Your task to perform on an android device: turn off javascript in the chrome app Image 0: 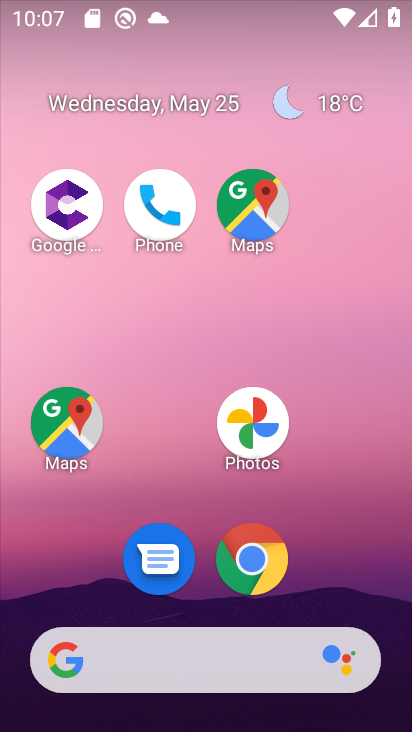
Step 0: click (257, 569)
Your task to perform on an android device: turn off javascript in the chrome app Image 1: 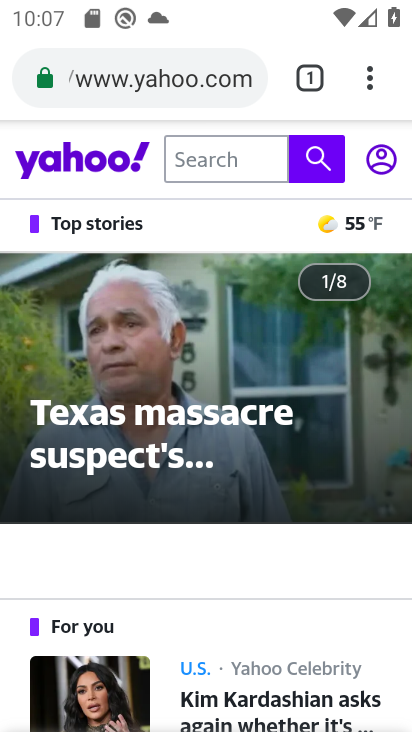
Step 1: click (378, 80)
Your task to perform on an android device: turn off javascript in the chrome app Image 2: 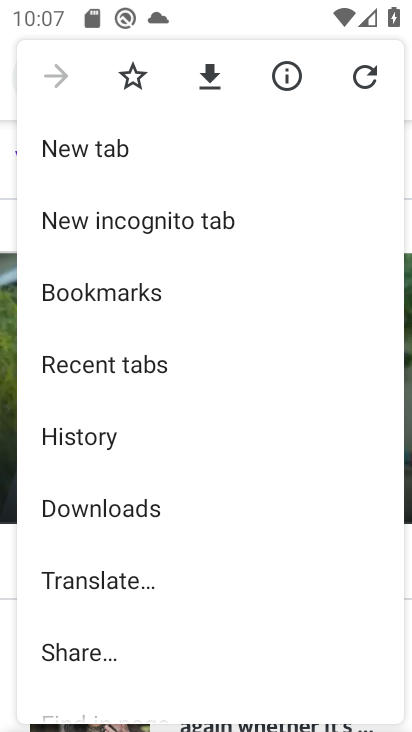
Step 2: drag from (152, 599) to (193, 258)
Your task to perform on an android device: turn off javascript in the chrome app Image 3: 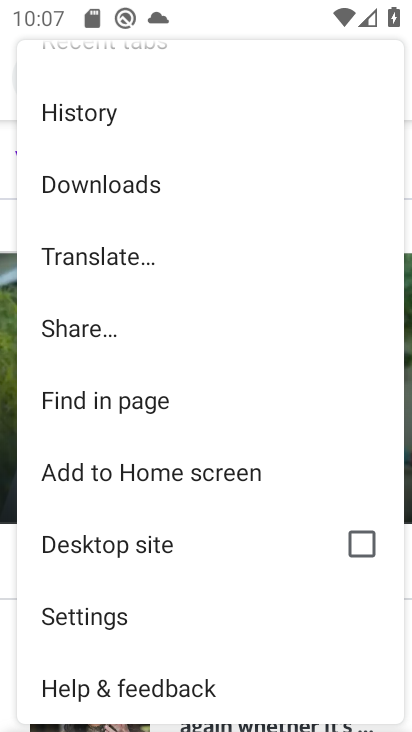
Step 3: click (103, 611)
Your task to perform on an android device: turn off javascript in the chrome app Image 4: 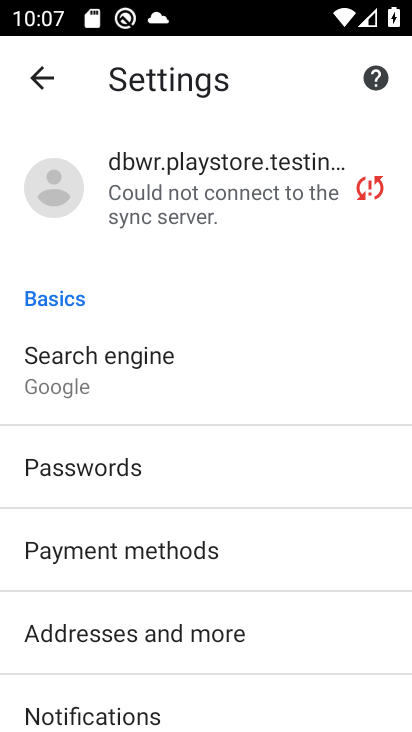
Step 4: drag from (274, 657) to (289, 382)
Your task to perform on an android device: turn off javascript in the chrome app Image 5: 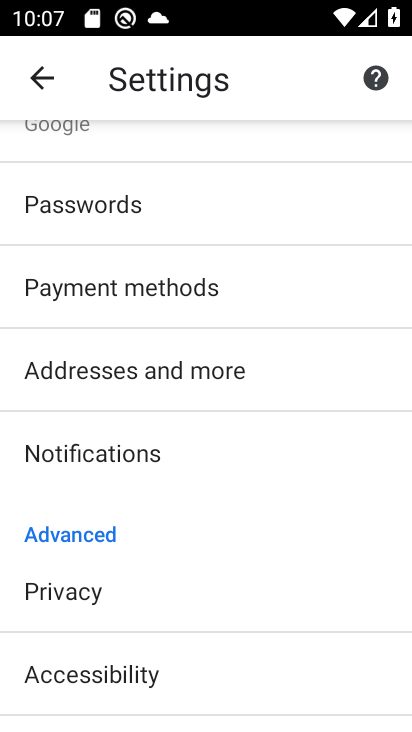
Step 5: drag from (253, 622) to (251, 264)
Your task to perform on an android device: turn off javascript in the chrome app Image 6: 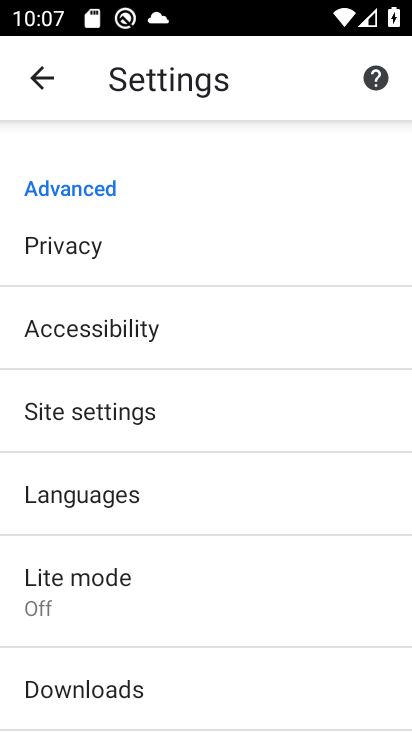
Step 6: click (133, 405)
Your task to perform on an android device: turn off javascript in the chrome app Image 7: 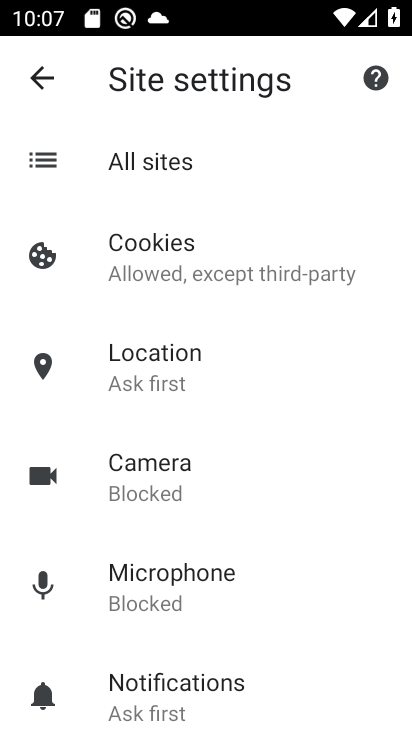
Step 7: drag from (281, 663) to (279, 317)
Your task to perform on an android device: turn off javascript in the chrome app Image 8: 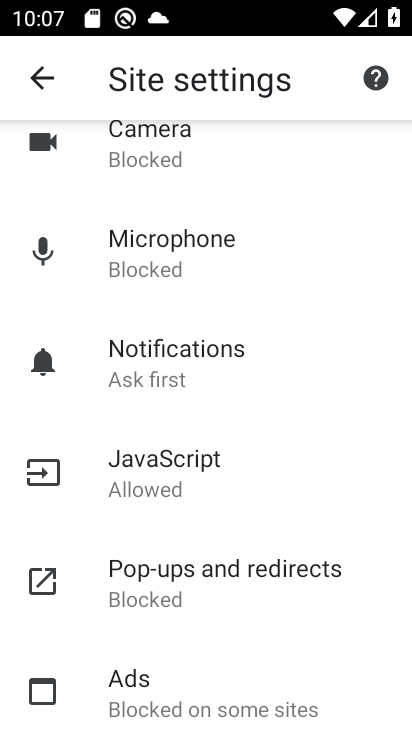
Step 8: click (165, 460)
Your task to perform on an android device: turn off javascript in the chrome app Image 9: 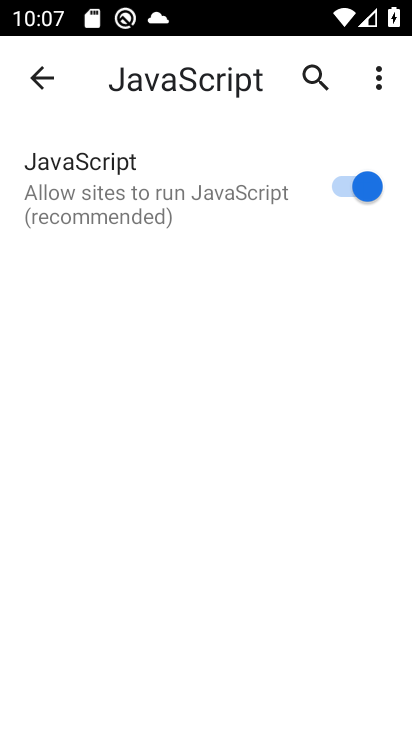
Step 9: click (344, 179)
Your task to perform on an android device: turn off javascript in the chrome app Image 10: 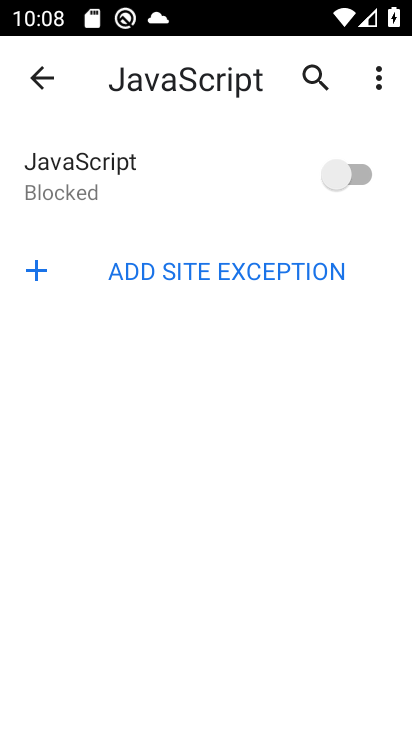
Step 10: task complete